Your task to perform on an android device: Play the latest video from the Washington Post Image 0: 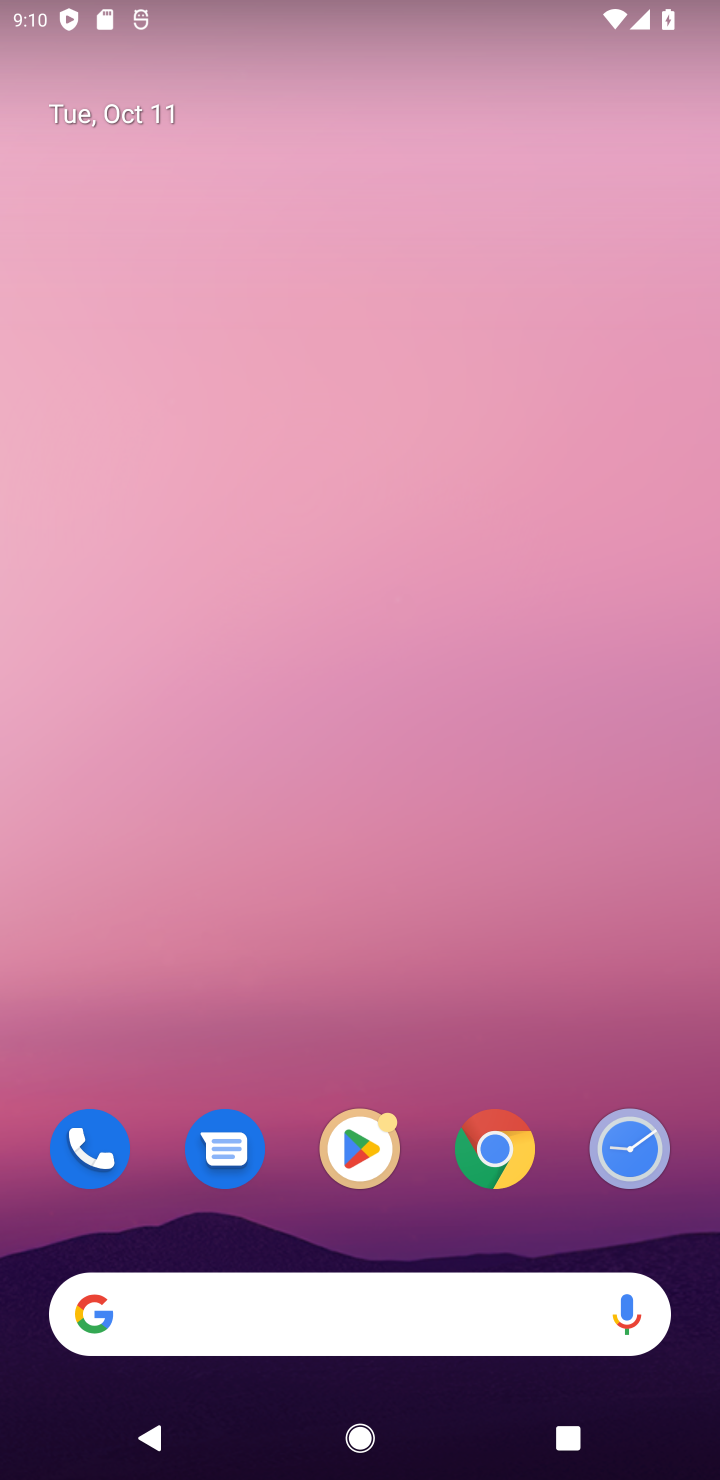
Step 0: drag from (171, 648) to (98, 1)
Your task to perform on an android device: Play the latest video from the Washington Post Image 1: 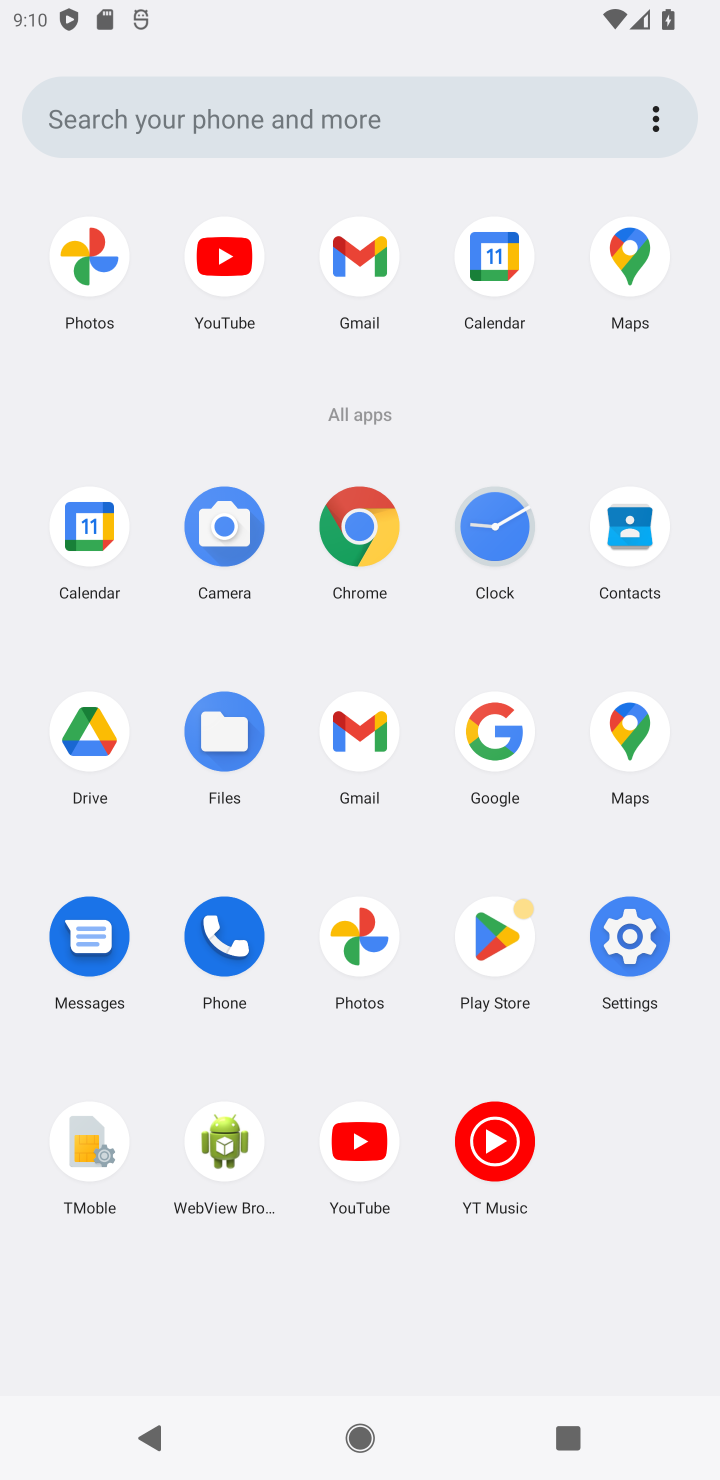
Step 1: click (242, 255)
Your task to perform on an android device: Play the latest video from the Washington Post Image 2: 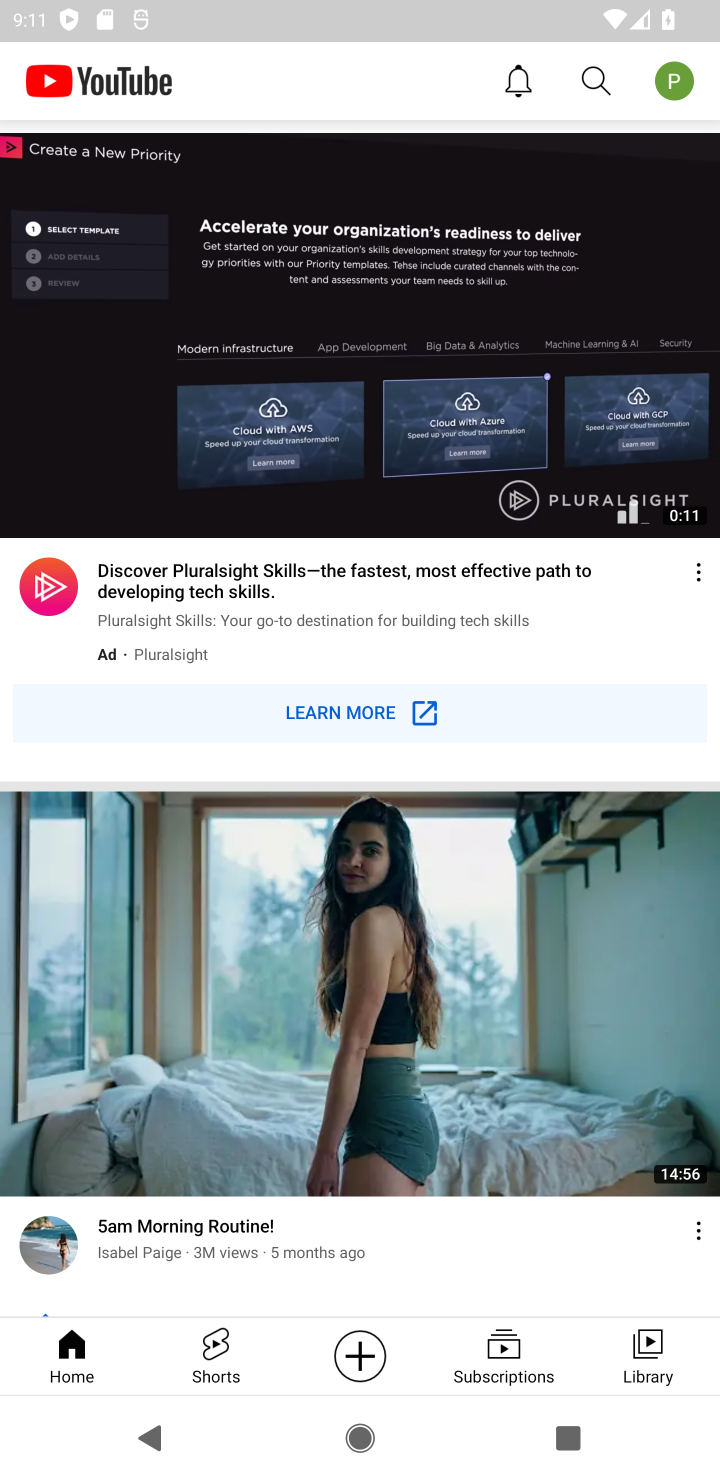
Step 2: click (587, 84)
Your task to perform on an android device: Play the latest video from the Washington Post Image 3: 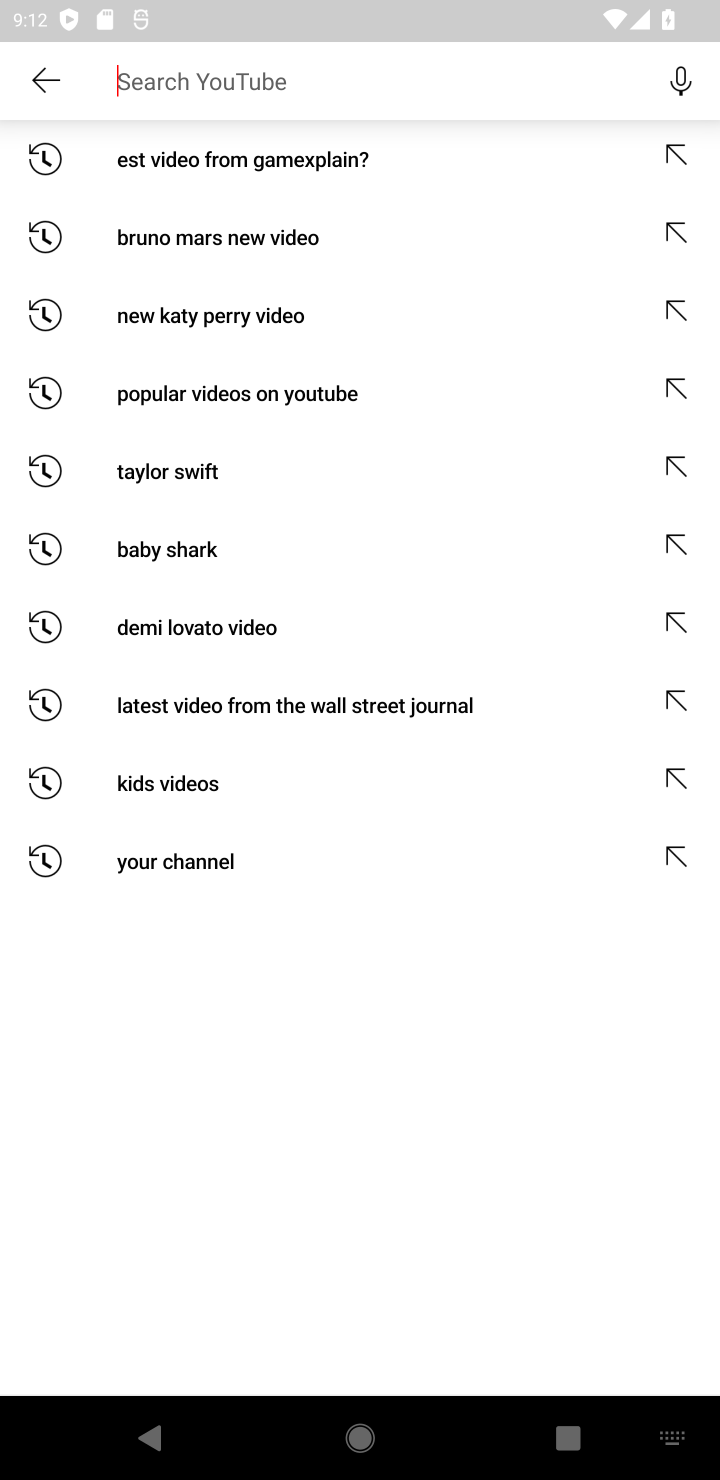
Step 3: type "Play the latest video from the Washington Post"
Your task to perform on an android device: Play the latest video from the Washington Post Image 4: 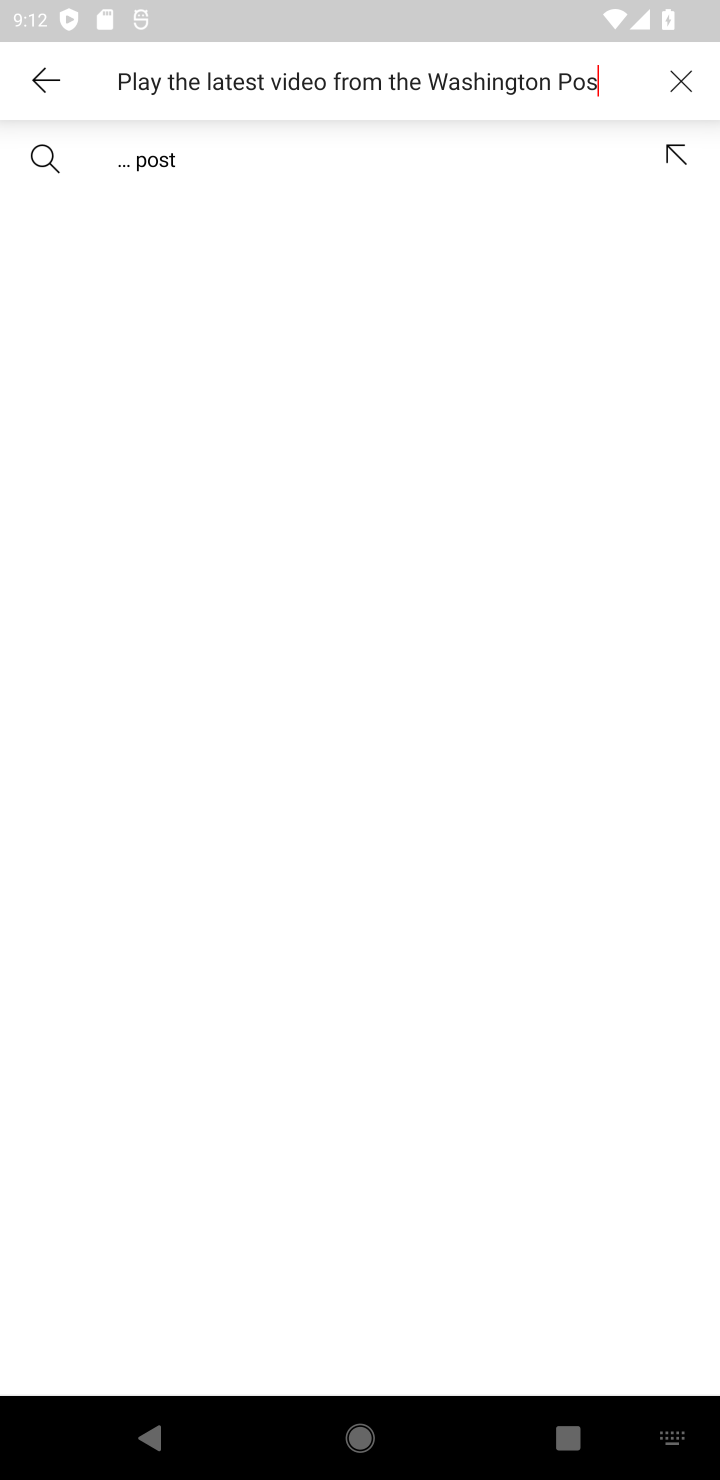
Step 4: press enter
Your task to perform on an android device: Play the latest video from the Washington Post Image 5: 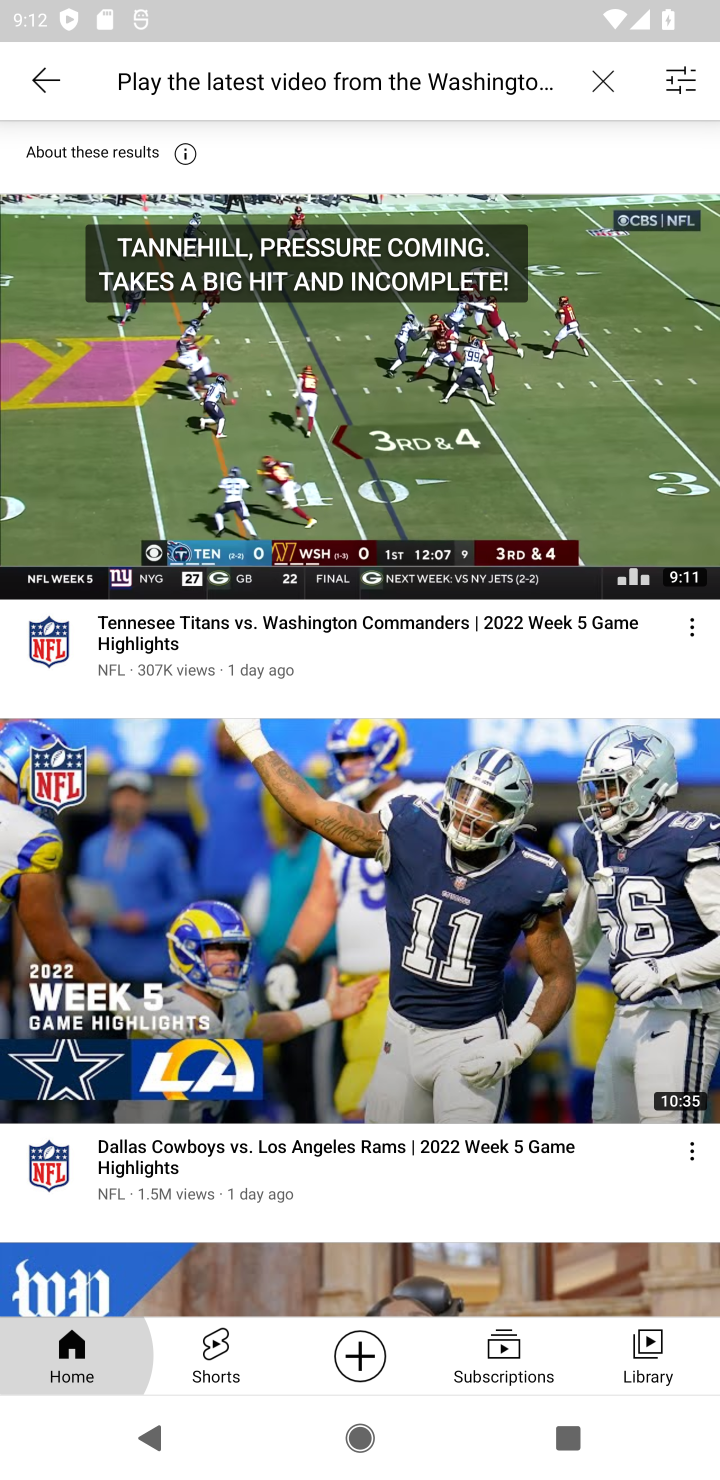
Step 5: click (316, 508)
Your task to perform on an android device: Play the latest video from the Washington Post Image 6: 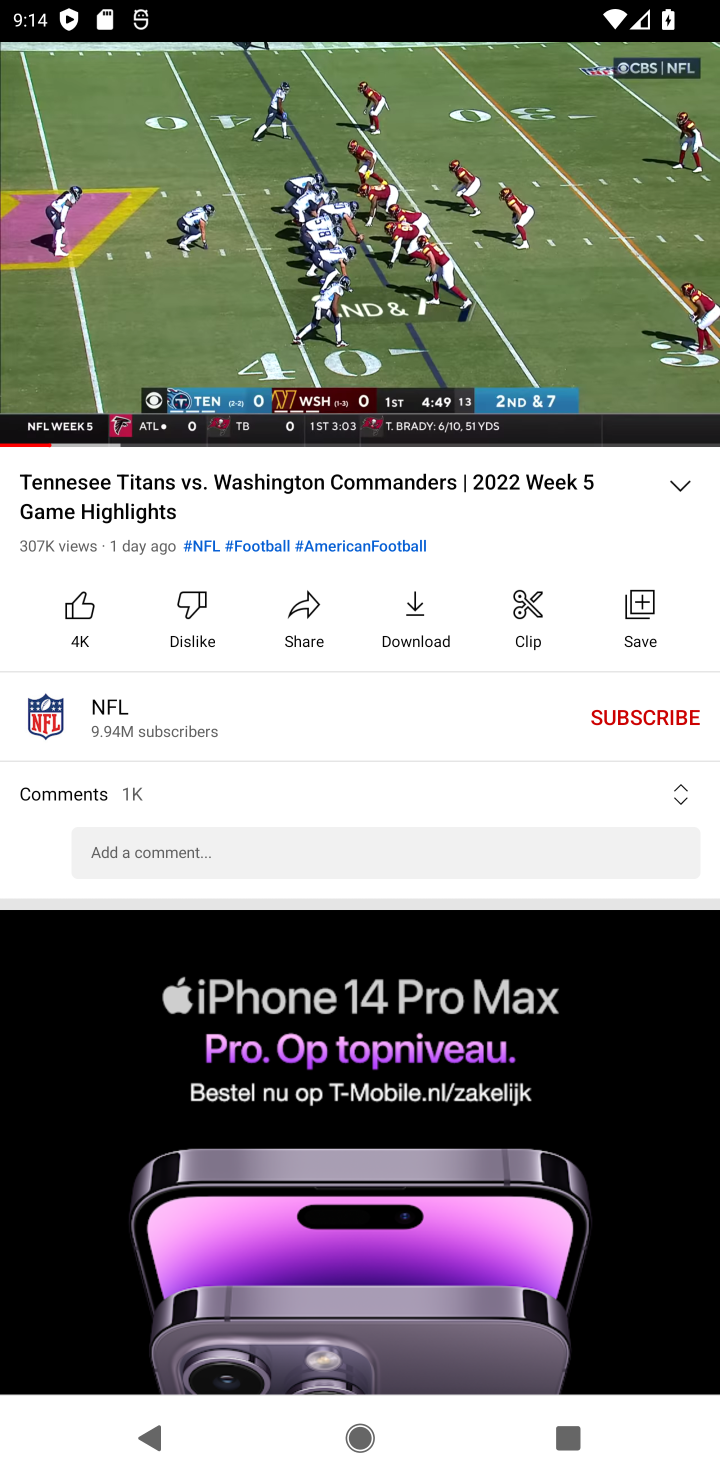
Step 6: task complete